Your task to perform on an android device: change timer sound Image 0: 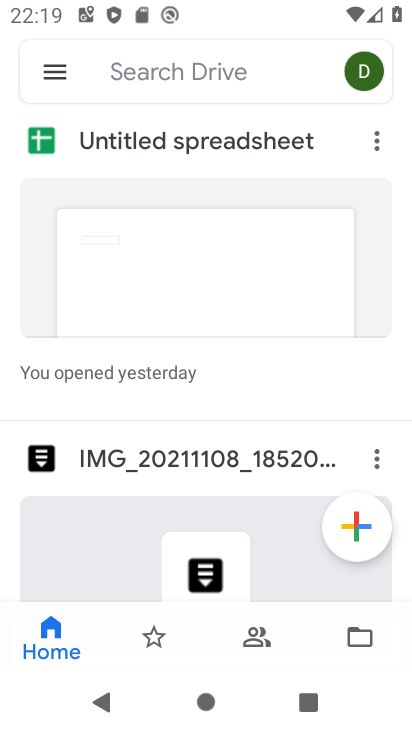
Step 0: press home button
Your task to perform on an android device: change timer sound Image 1: 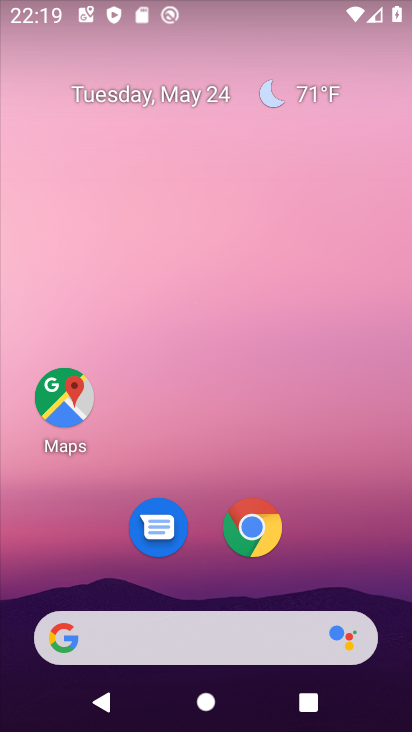
Step 1: drag from (208, 580) to (262, 3)
Your task to perform on an android device: change timer sound Image 2: 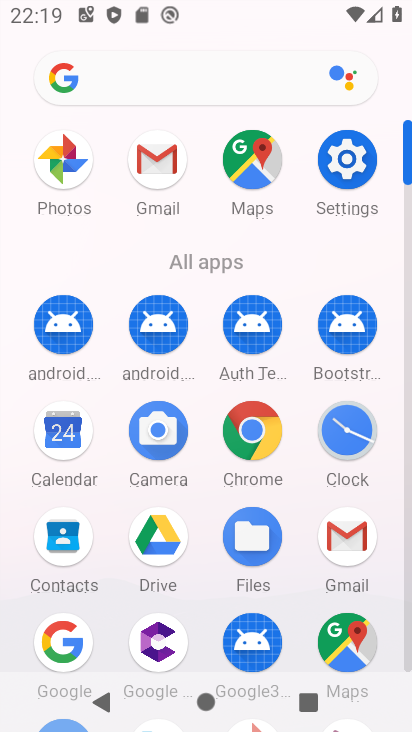
Step 2: click (353, 436)
Your task to perform on an android device: change timer sound Image 3: 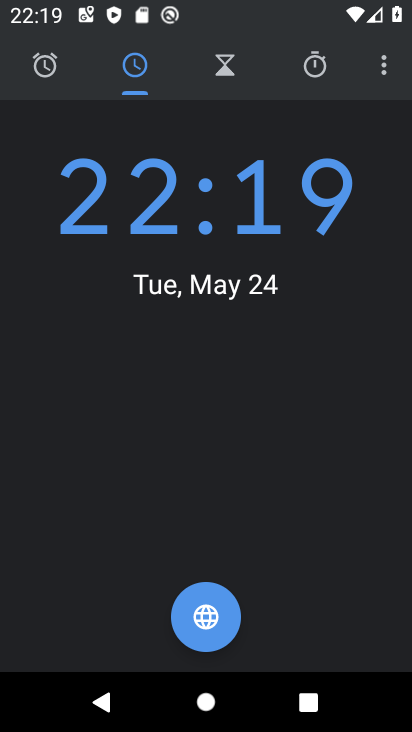
Step 3: click (383, 71)
Your task to perform on an android device: change timer sound Image 4: 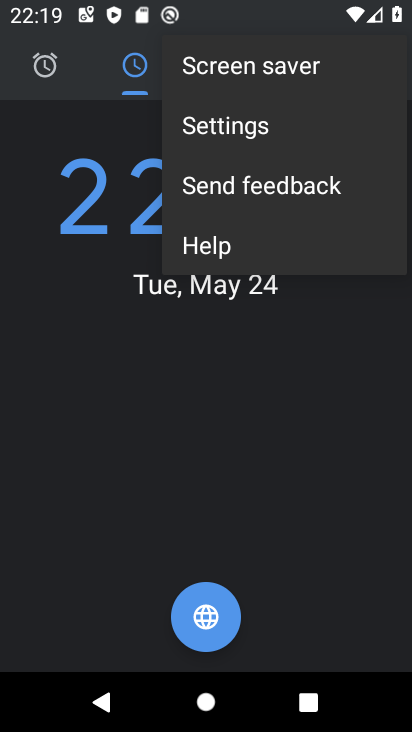
Step 4: click (254, 132)
Your task to perform on an android device: change timer sound Image 5: 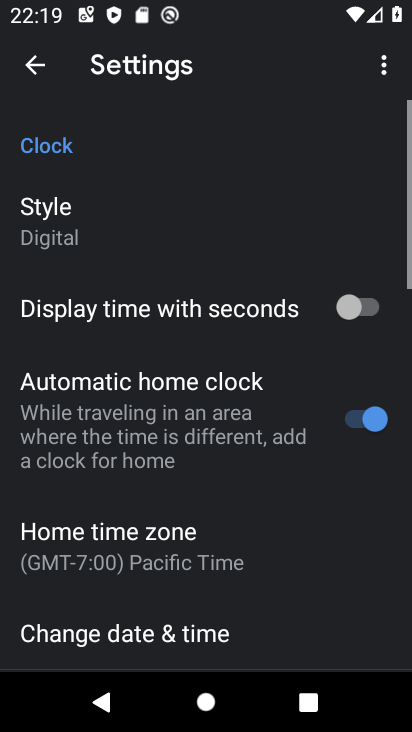
Step 5: drag from (245, 618) to (251, 219)
Your task to perform on an android device: change timer sound Image 6: 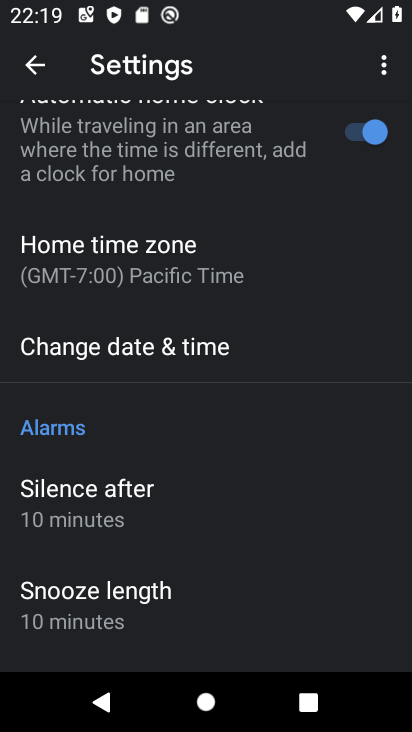
Step 6: drag from (99, 636) to (134, 337)
Your task to perform on an android device: change timer sound Image 7: 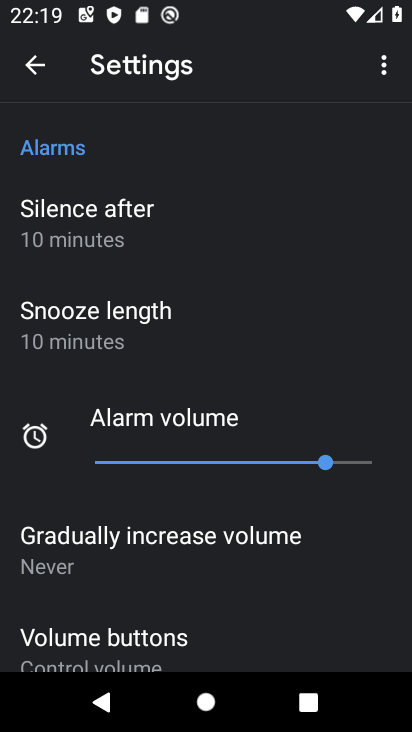
Step 7: drag from (204, 576) to (194, 184)
Your task to perform on an android device: change timer sound Image 8: 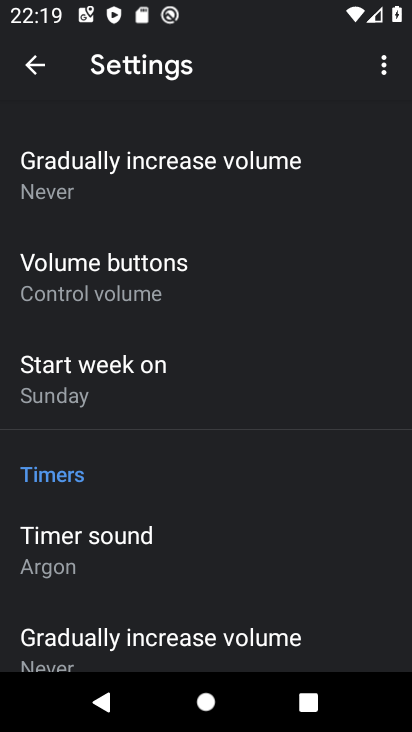
Step 8: click (183, 558)
Your task to perform on an android device: change timer sound Image 9: 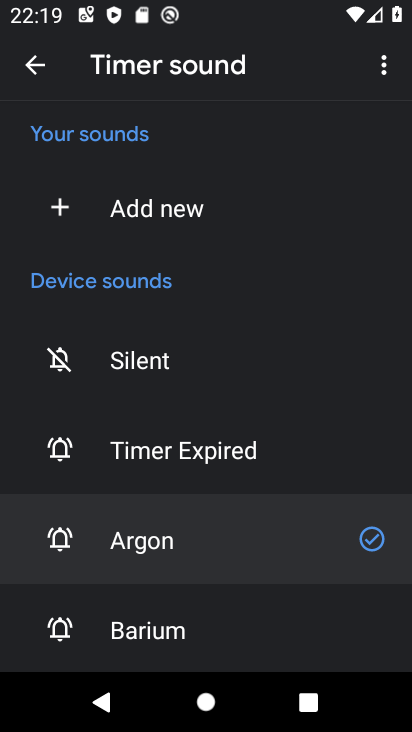
Step 9: click (215, 615)
Your task to perform on an android device: change timer sound Image 10: 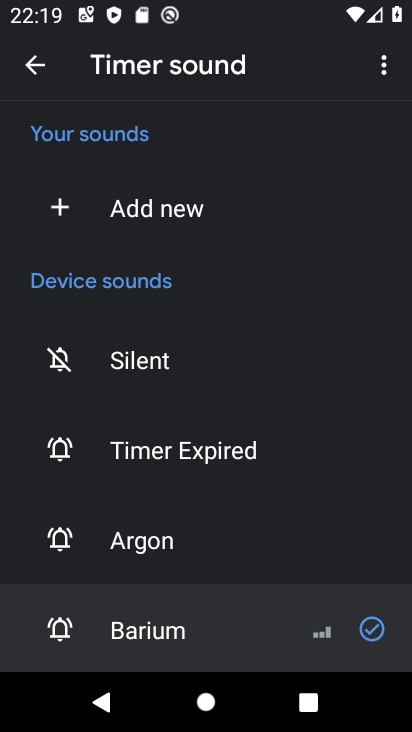
Step 10: task complete